Your task to perform on an android device: open a new tab in the chrome app Image 0: 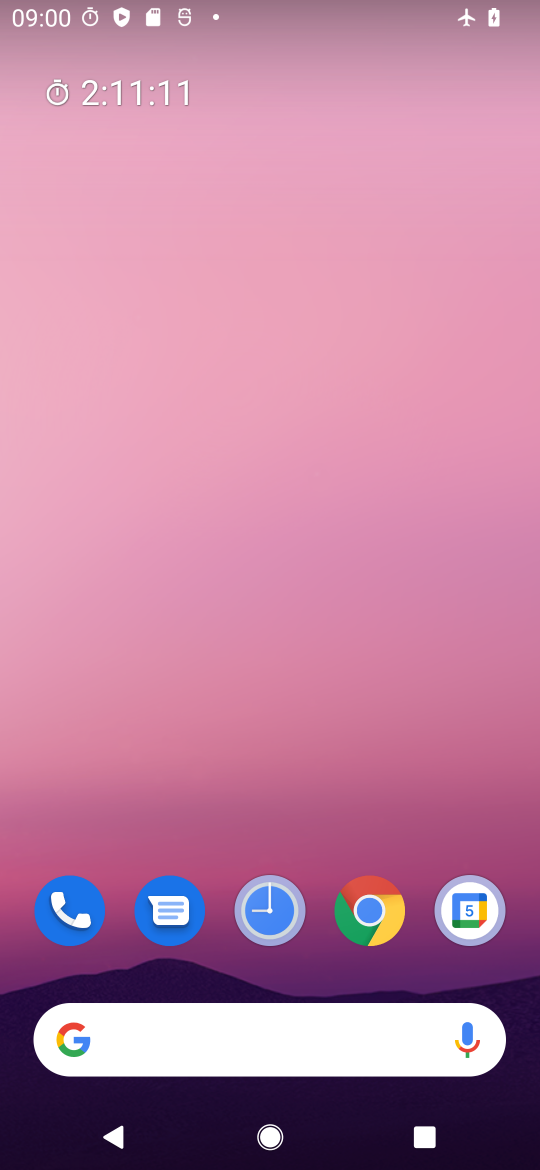
Step 0: drag from (287, 1064) to (326, 346)
Your task to perform on an android device: open a new tab in the chrome app Image 1: 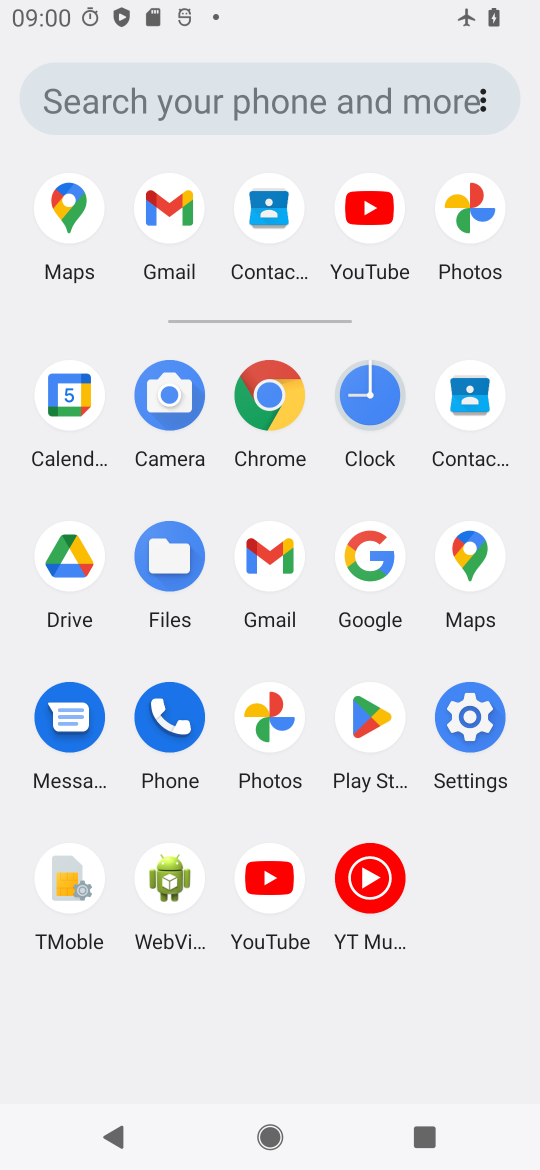
Step 1: click (279, 390)
Your task to perform on an android device: open a new tab in the chrome app Image 2: 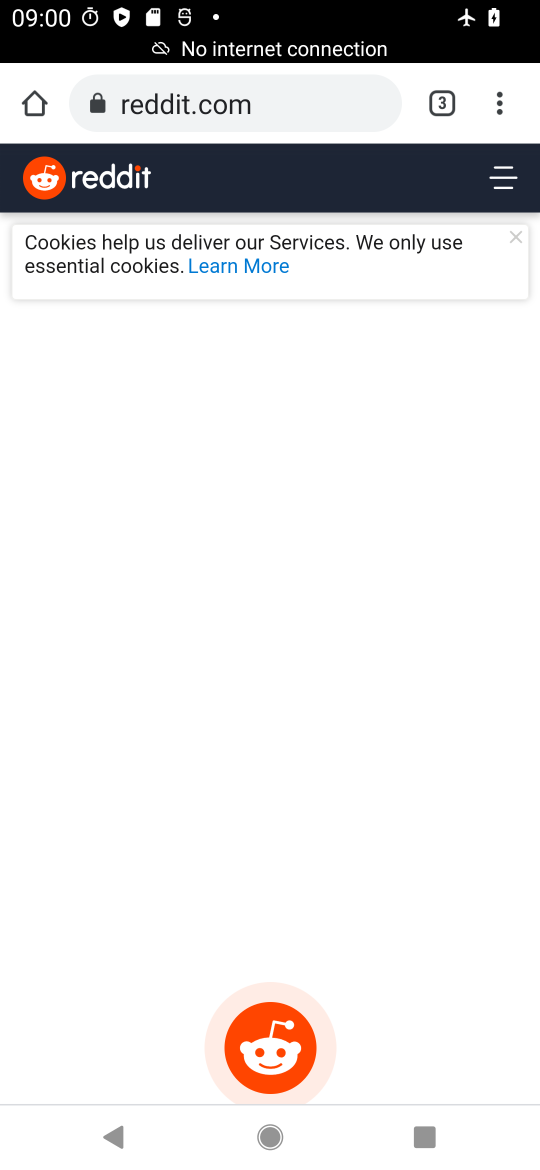
Step 2: click (499, 93)
Your task to perform on an android device: open a new tab in the chrome app Image 3: 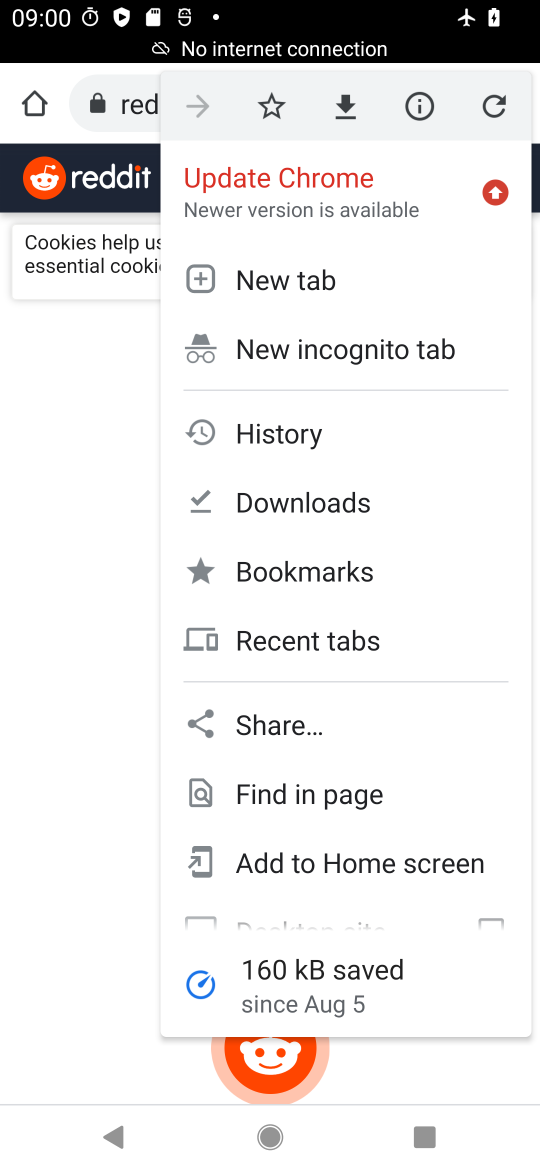
Step 3: click (314, 280)
Your task to perform on an android device: open a new tab in the chrome app Image 4: 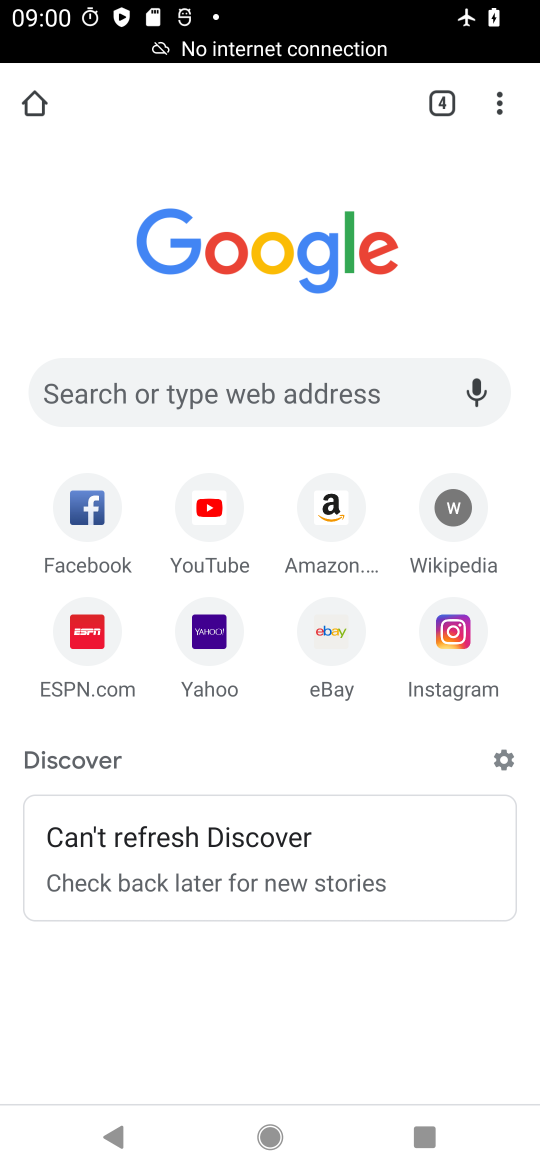
Step 4: task complete